Your task to perform on an android device: uninstall "Pluto TV - Live TV and Movies" Image 0: 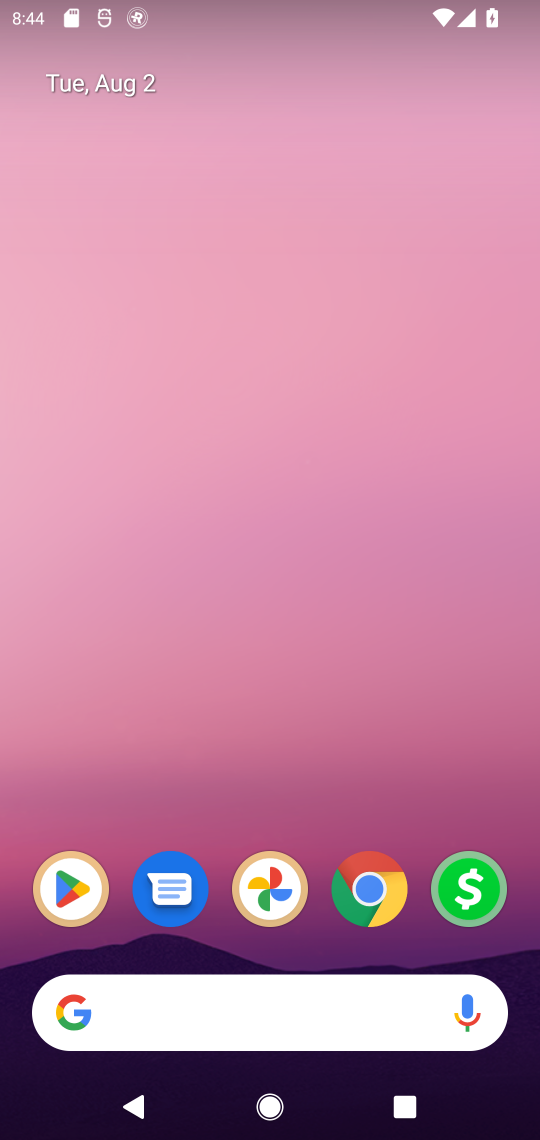
Step 0: press home button
Your task to perform on an android device: uninstall "Pluto TV - Live TV and Movies" Image 1: 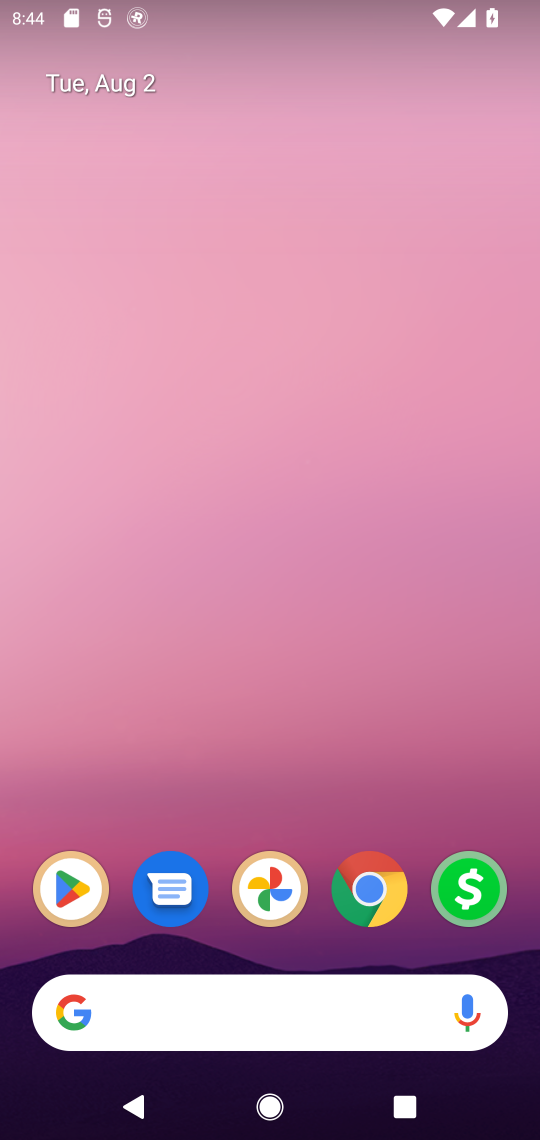
Step 1: click (75, 887)
Your task to perform on an android device: uninstall "Pluto TV - Live TV and Movies" Image 2: 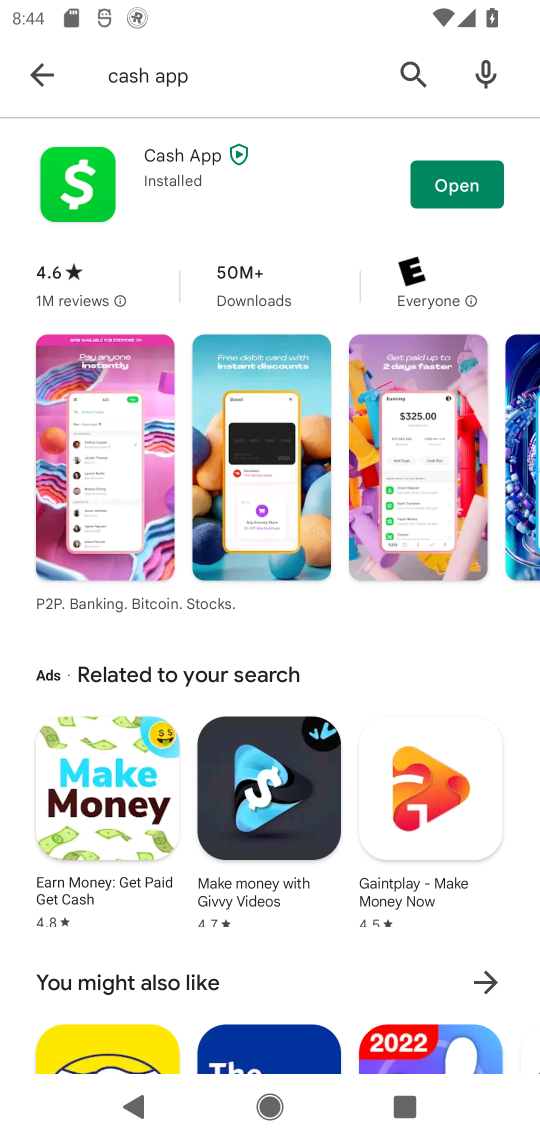
Step 2: click (410, 68)
Your task to perform on an android device: uninstall "Pluto TV - Live TV and Movies" Image 3: 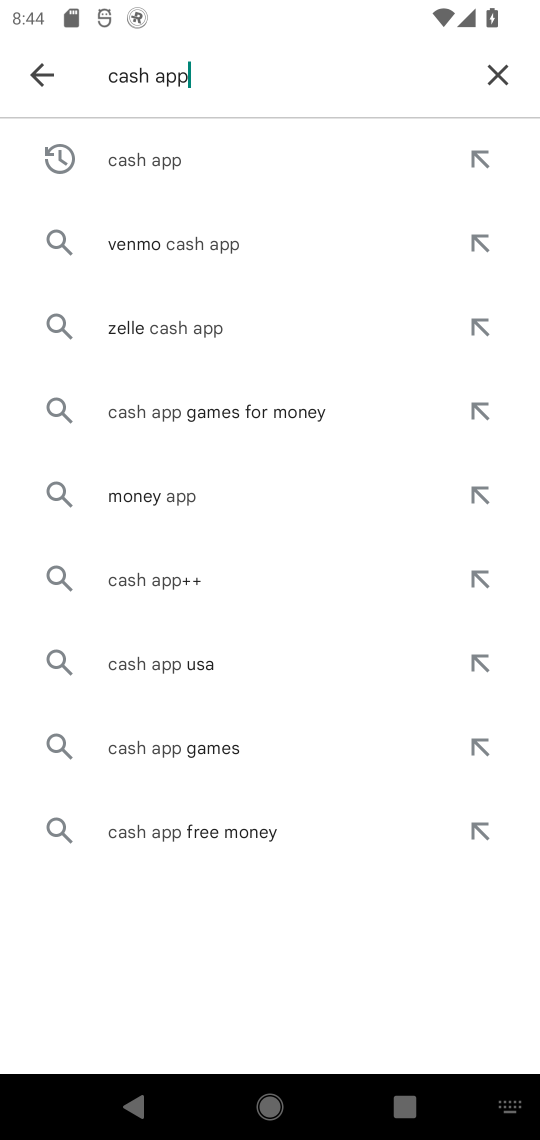
Step 3: click (496, 71)
Your task to perform on an android device: uninstall "Pluto TV - Live TV and Movies" Image 4: 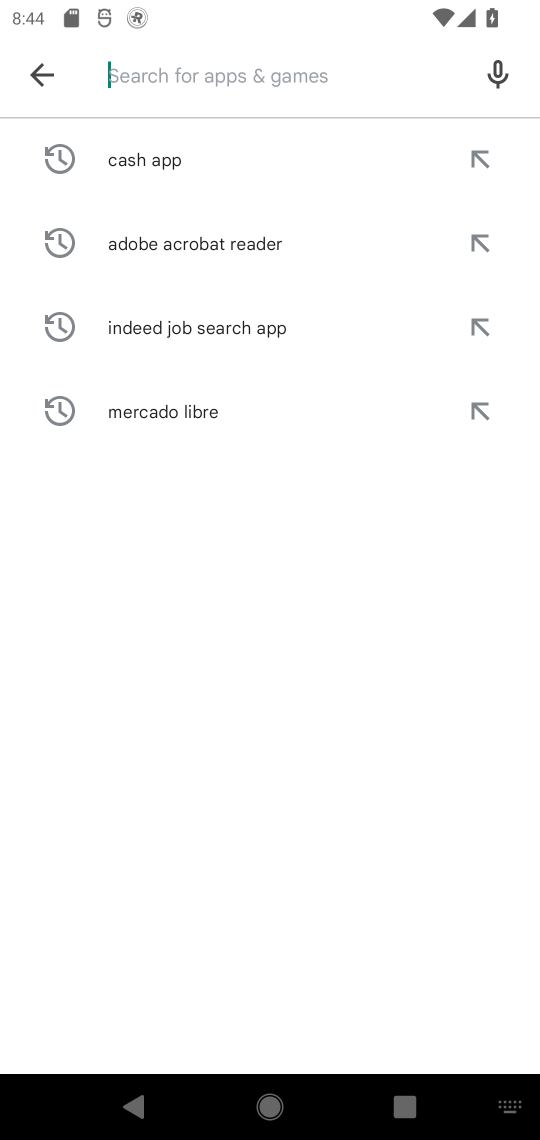
Step 4: type "Pluto TV - Live TV and Movies"
Your task to perform on an android device: uninstall "Pluto TV - Live TV and Movies" Image 5: 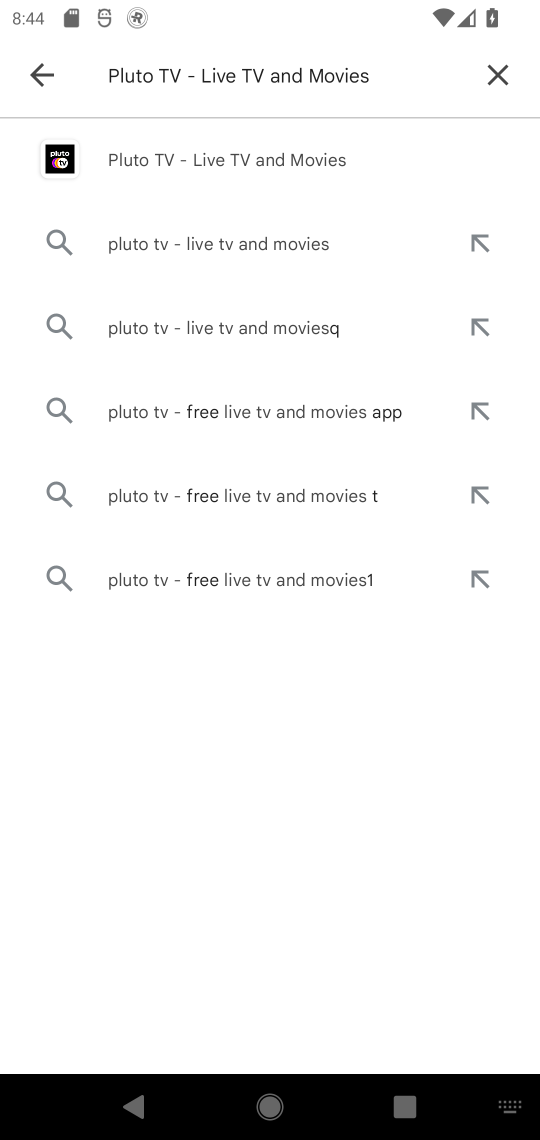
Step 5: click (236, 161)
Your task to perform on an android device: uninstall "Pluto TV - Live TV and Movies" Image 6: 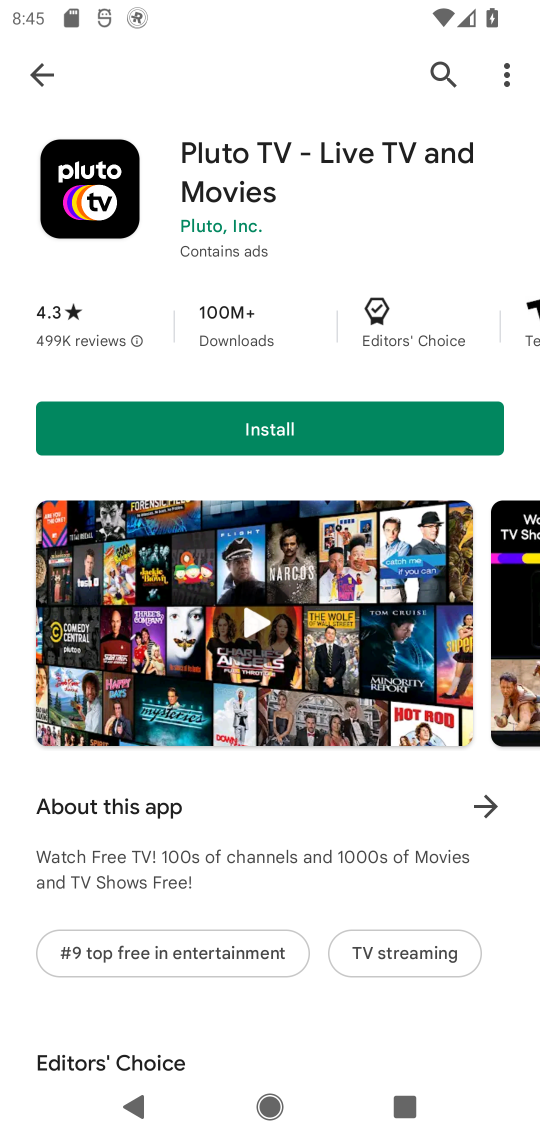
Step 6: task complete